Your task to perform on an android device: turn notification dots off Image 0: 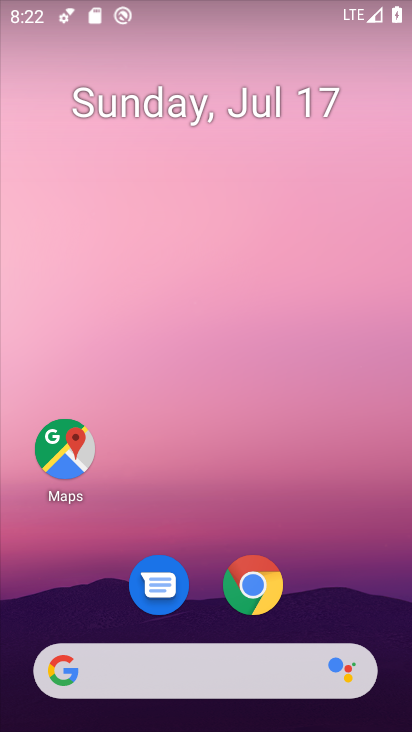
Step 0: drag from (312, 574) to (295, 0)
Your task to perform on an android device: turn notification dots off Image 1: 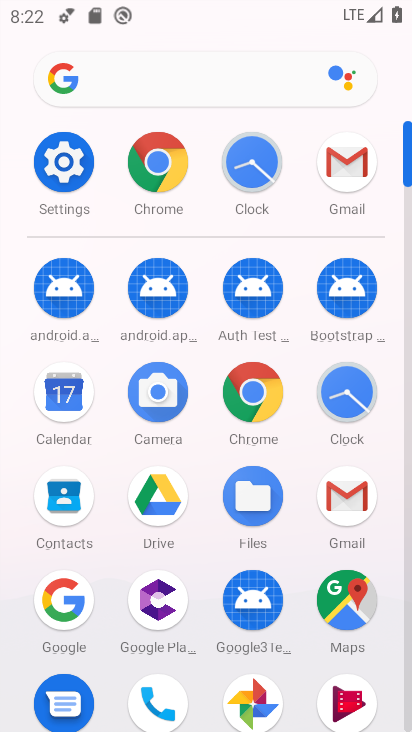
Step 1: click (68, 187)
Your task to perform on an android device: turn notification dots off Image 2: 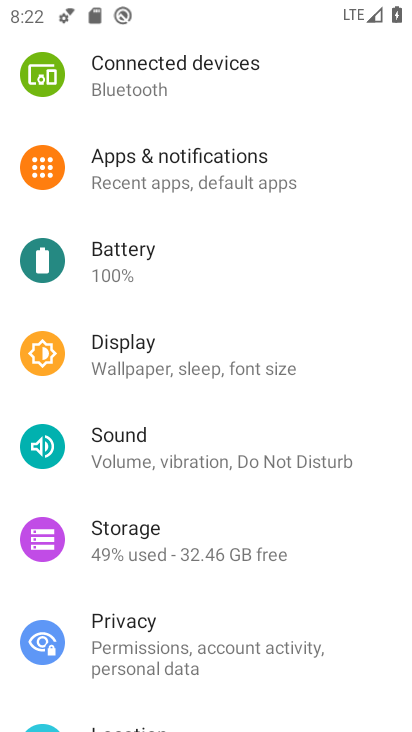
Step 2: click (245, 177)
Your task to perform on an android device: turn notification dots off Image 3: 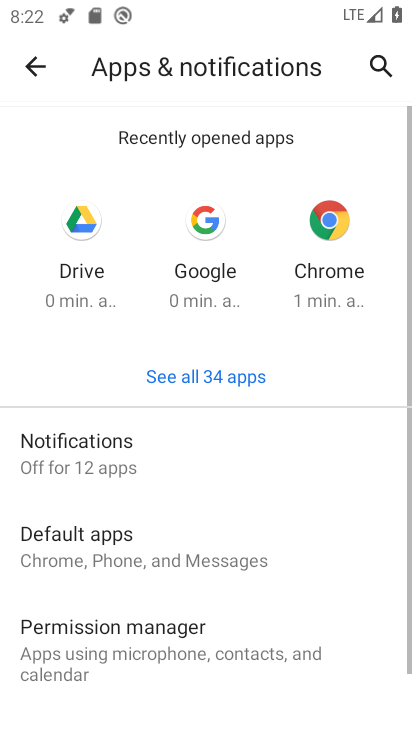
Step 3: drag from (295, 624) to (284, 197)
Your task to perform on an android device: turn notification dots off Image 4: 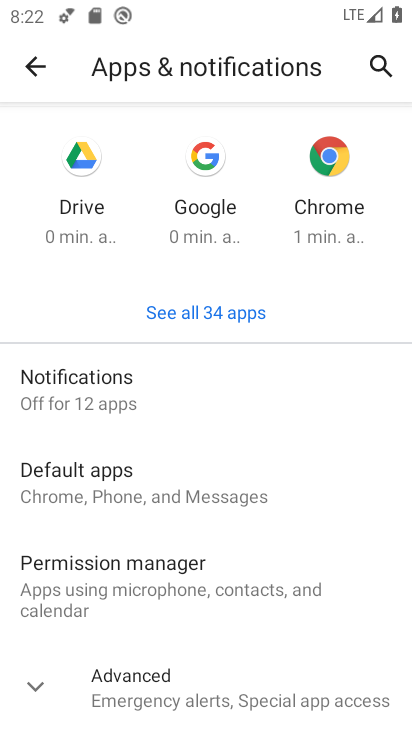
Step 4: click (102, 395)
Your task to perform on an android device: turn notification dots off Image 5: 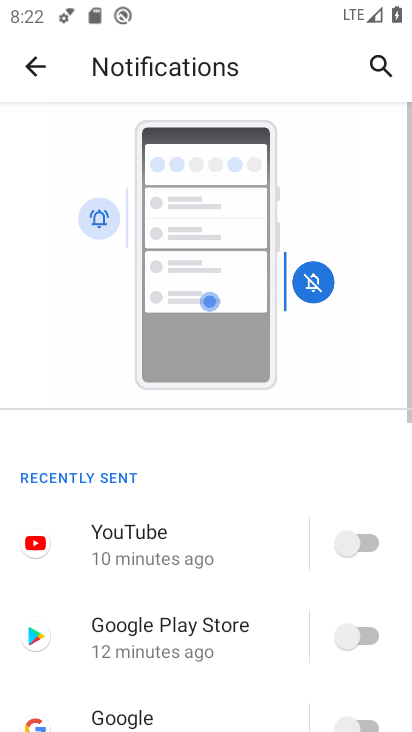
Step 5: drag from (171, 628) to (208, 132)
Your task to perform on an android device: turn notification dots off Image 6: 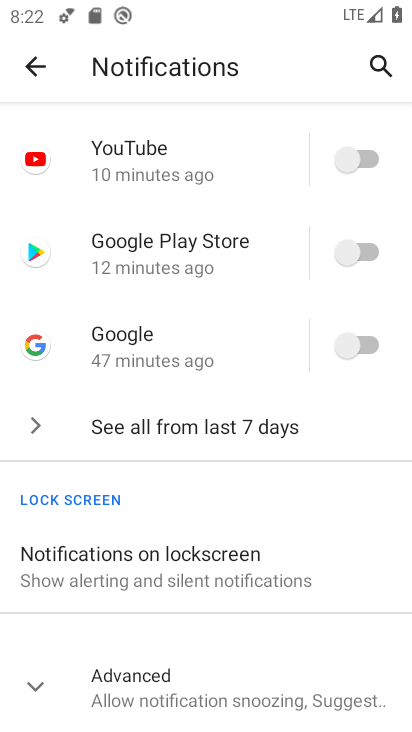
Step 6: click (30, 687)
Your task to perform on an android device: turn notification dots off Image 7: 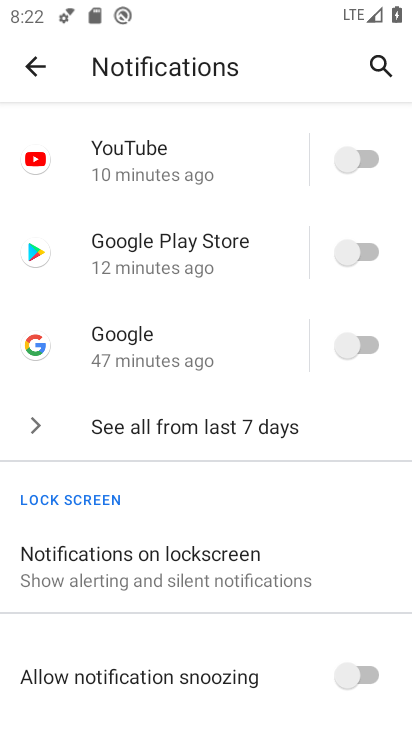
Step 7: task complete